Your task to perform on an android device: turn on javascript in the chrome app Image 0: 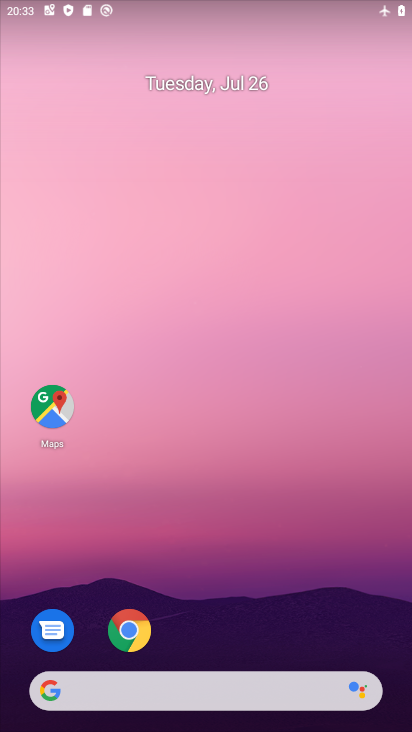
Step 0: drag from (206, 634) to (204, 243)
Your task to perform on an android device: turn on javascript in the chrome app Image 1: 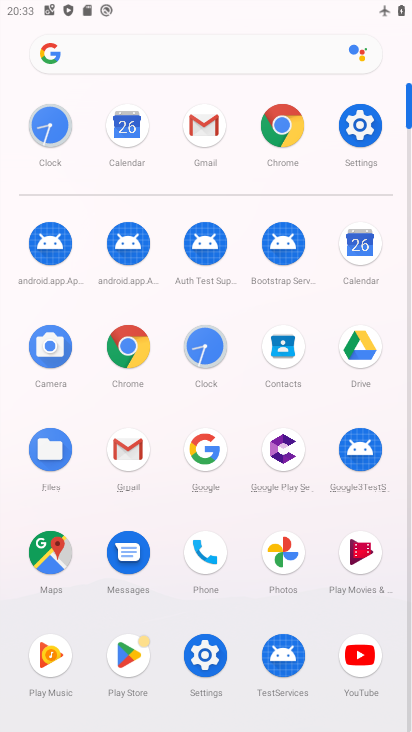
Step 1: click (350, 134)
Your task to perform on an android device: turn on javascript in the chrome app Image 2: 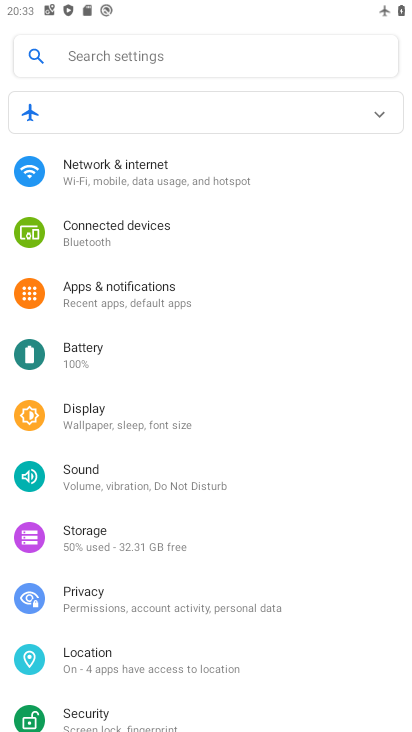
Step 2: task complete